Your task to perform on an android device: turn on sleep mode Image 0: 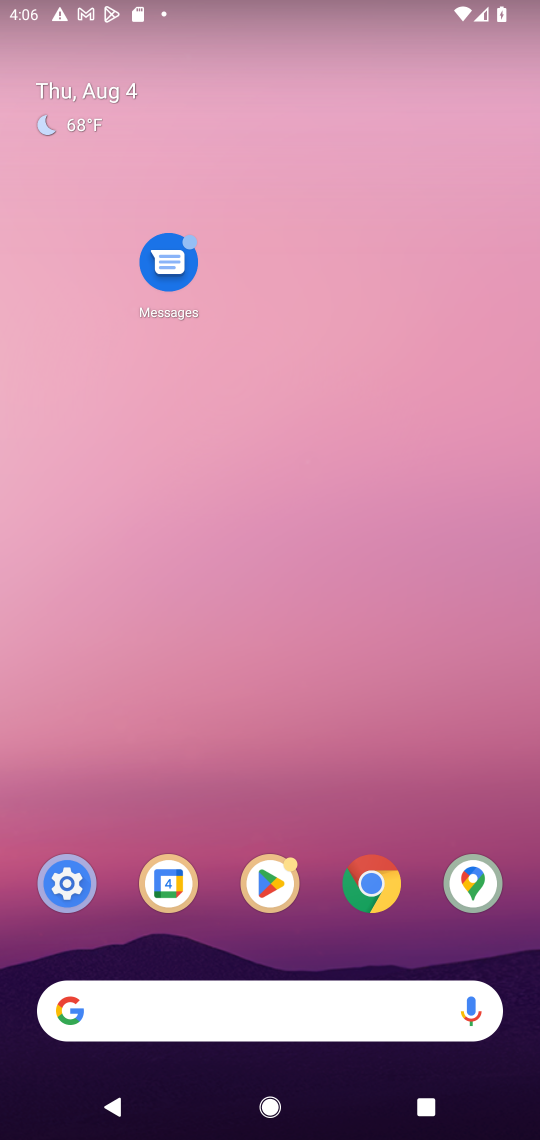
Step 0: drag from (303, 923) to (252, 163)
Your task to perform on an android device: turn on sleep mode Image 1: 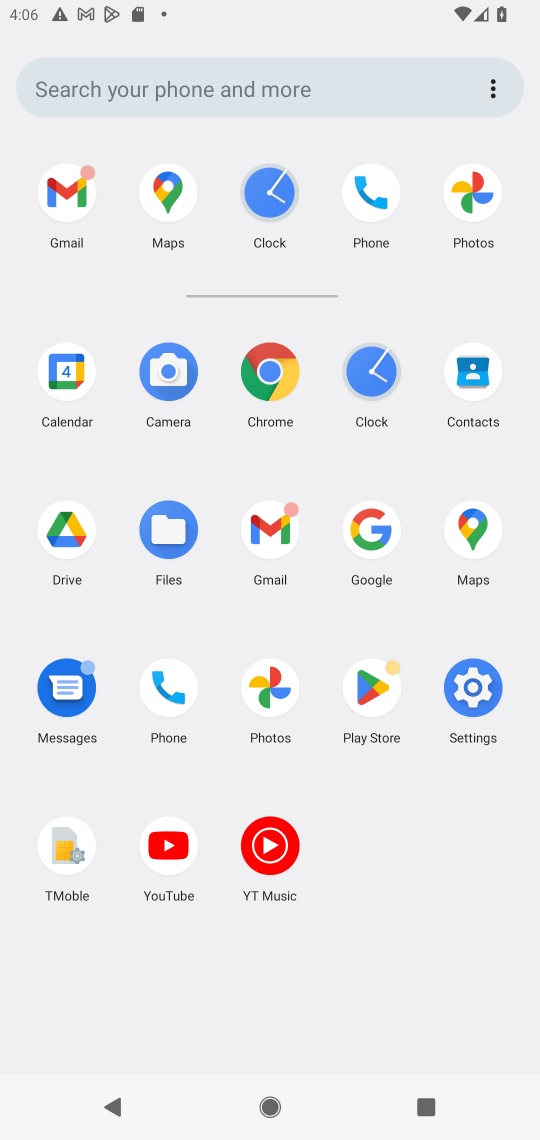
Step 1: click (468, 676)
Your task to perform on an android device: turn on sleep mode Image 2: 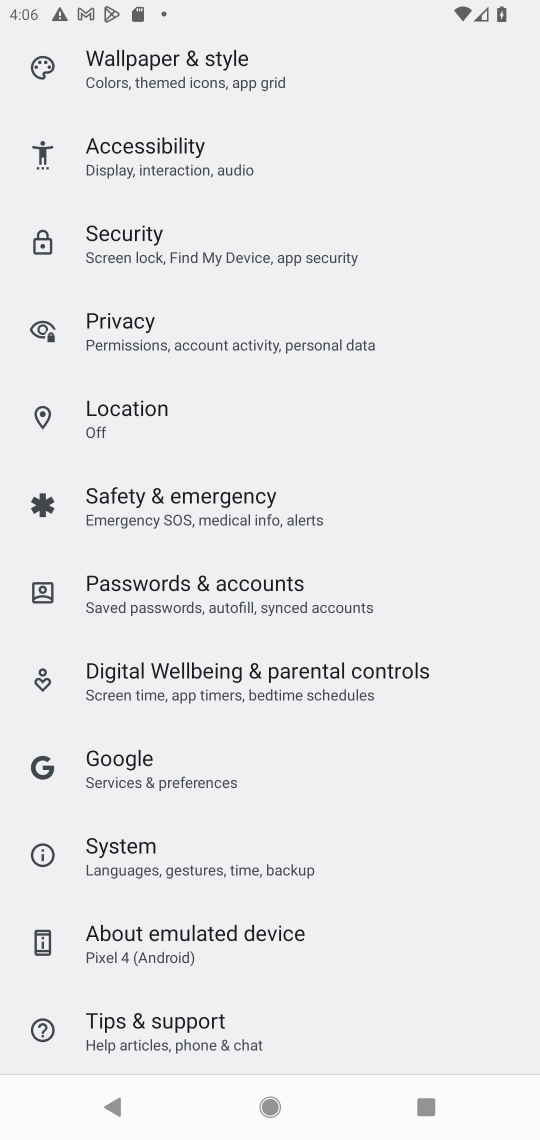
Step 2: drag from (181, 205) to (189, 627)
Your task to perform on an android device: turn on sleep mode Image 3: 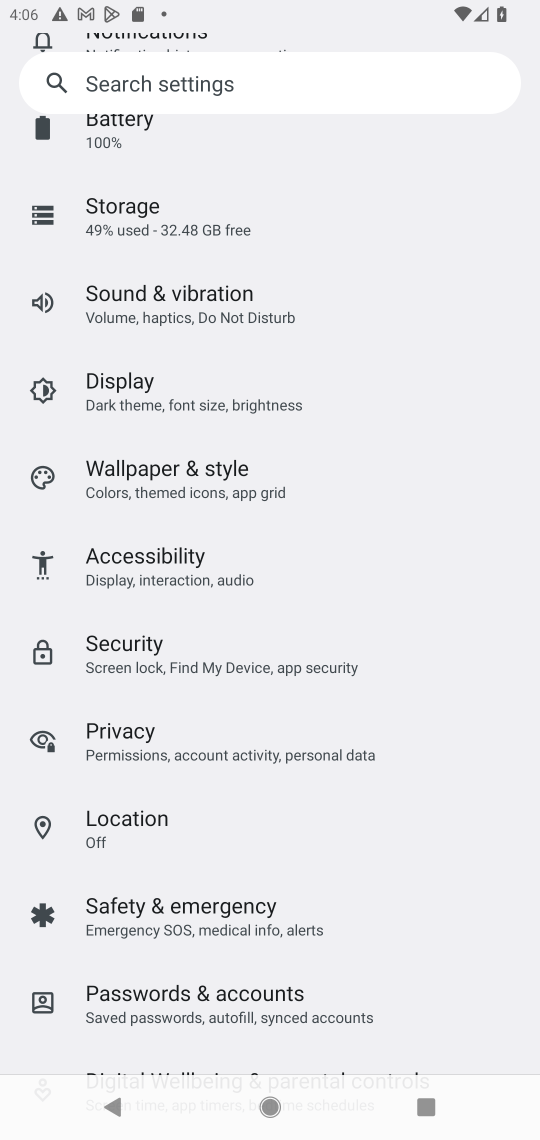
Step 3: drag from (180, 184) to (177, 841)
Your task to perform on an android device: turn on sleep mode Image 4: 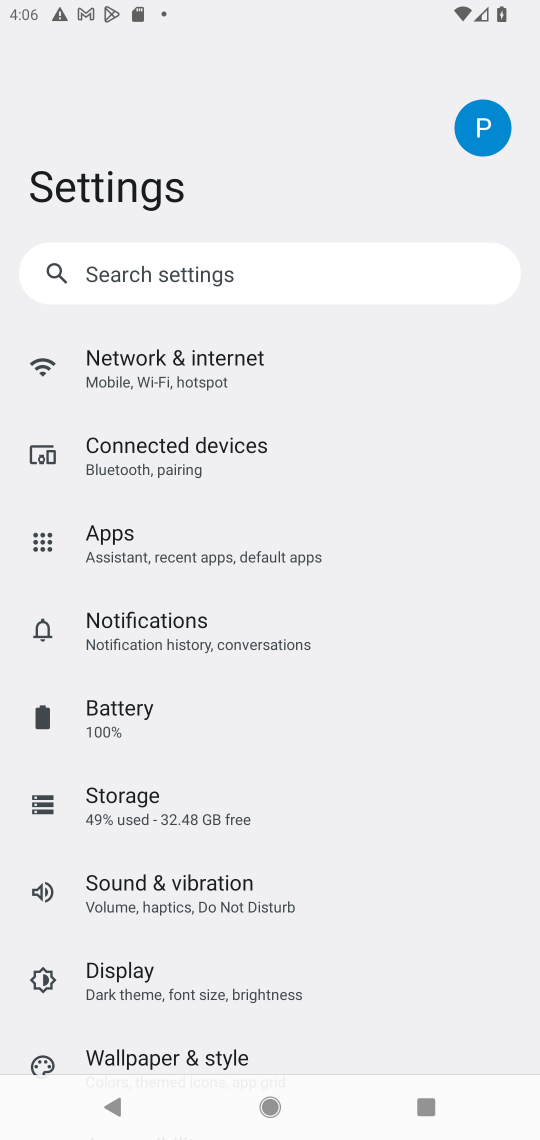
Step 4: click (99, 983)
Your task to perform on an android device: turn on sleep mode Image 5: 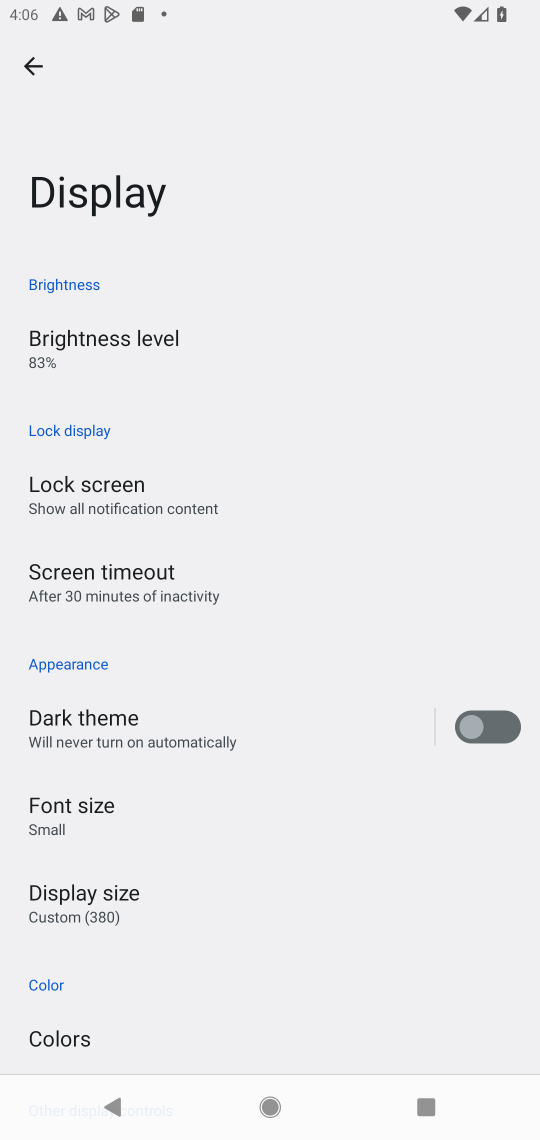
Step 5: task complete